Your task to perform on an android device: change your default location settings in chrome Image 0: 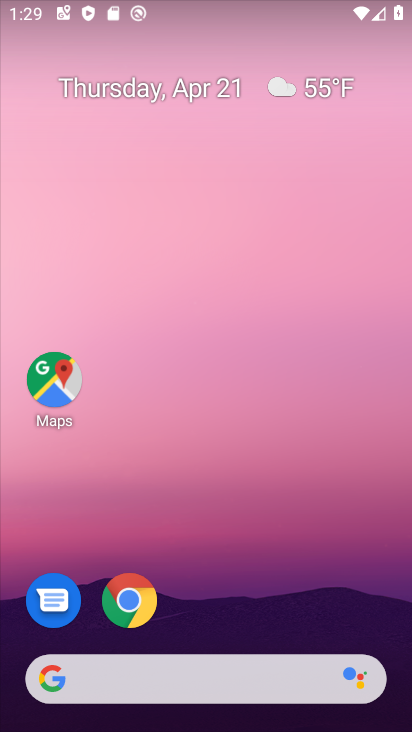
Step 0: drag from (291, 600) to (257, 156)
Your task to perform on an android device: change your default location settings in chrome Image 1: 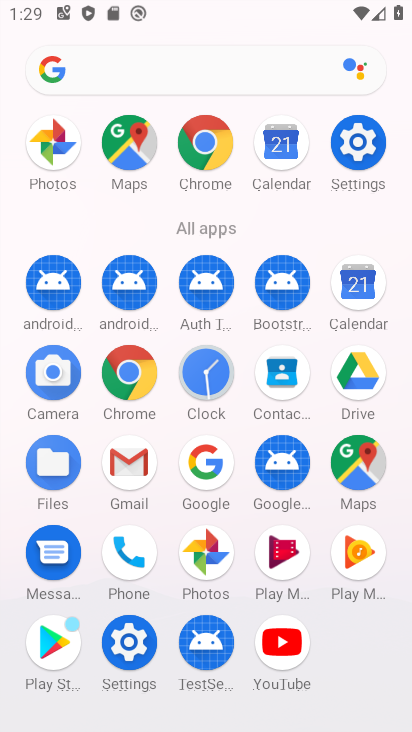
Step 1: click (373, 142)
Your task to perform on an android device: change your default location settings in chrome Image 2: 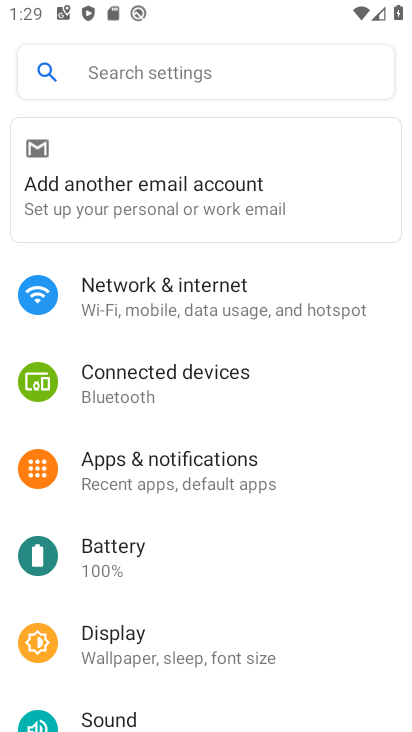
Step 2: drag from (196, 638) to (186, 489)
Your task to perform on an android device: change your default location settings in chrome Image 3: 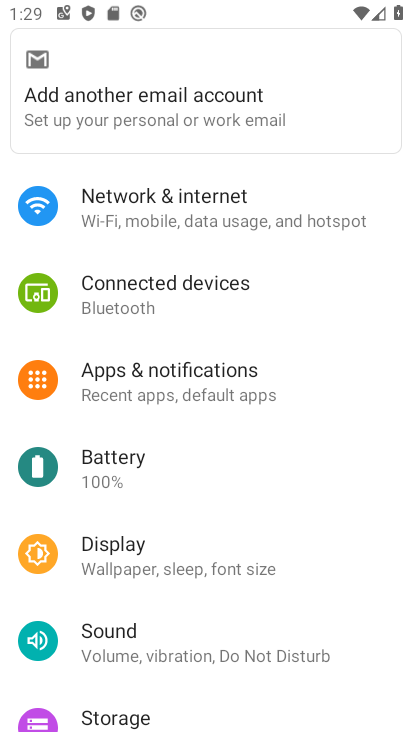
Step 3: drag from (206, 695) to (206, 453)
Your task to perform on an android device: change your default location settings in chrome Image 4: 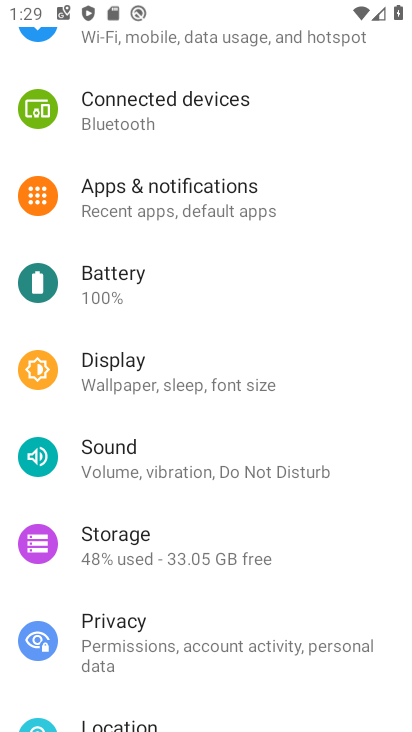
Step 4: drag from (229, 682) to (228, 499)
Your task to perform on an android device: change your default location settings in chrome Image 5: 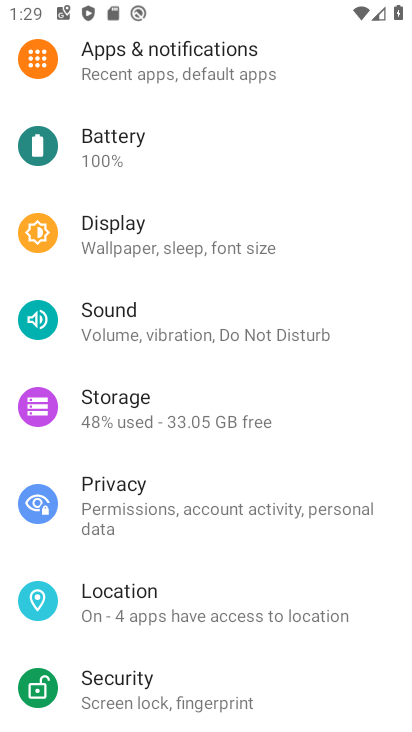
Step 5: click (220, 606)
Your task to perform on an android device: change your default location settings in chrome Image 6: 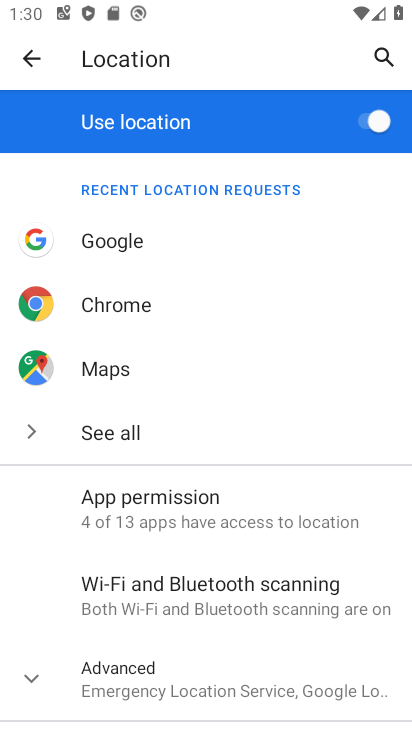
Step 6: press home button
Your task to perform on an android device: change your default location settings in chrome Image 7: 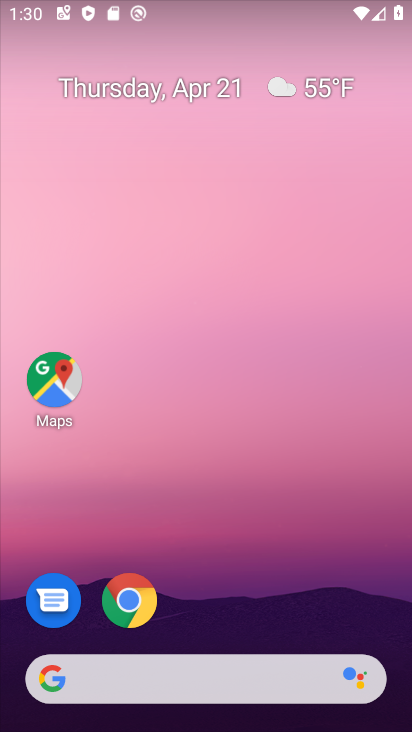
Step 7: drag from (267, 568) to (321, 175)
Your task to perform on an android device: change your default location settings in chrome Image 8: 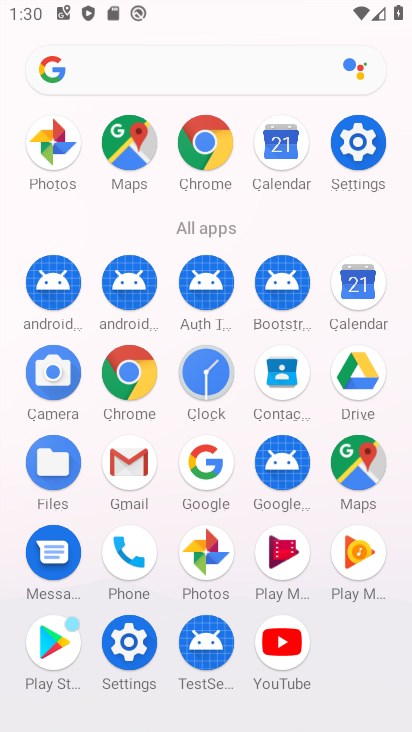
Step 8: click (204, 159)
Your task to perform on an android device: change your default location settings in chrome Image 9: 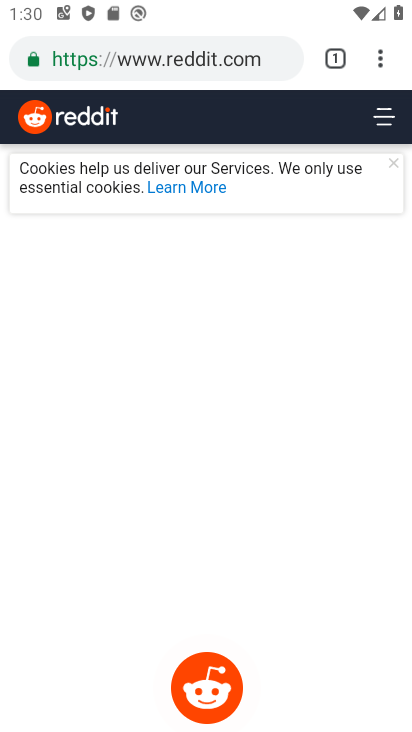
Step 9: drag from (378, 60) to (187, 635)
Your task to perform on an android device: change your default location settings in chrome Image 10: 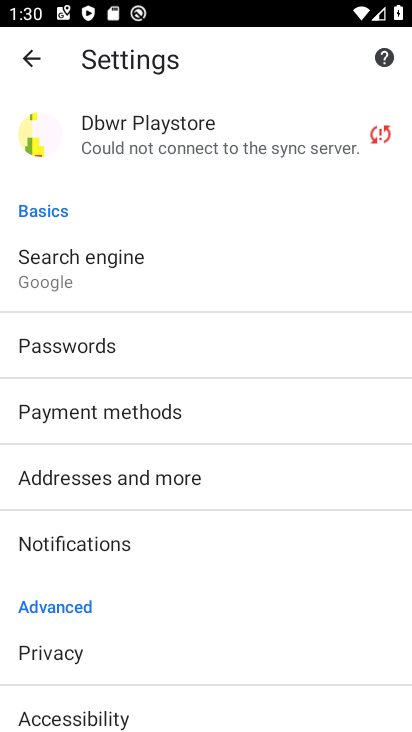
Step 10: drag from (169, 666) to (159, 334)
Your task to perform on an android device: change your default location settings in chrome Image 11: 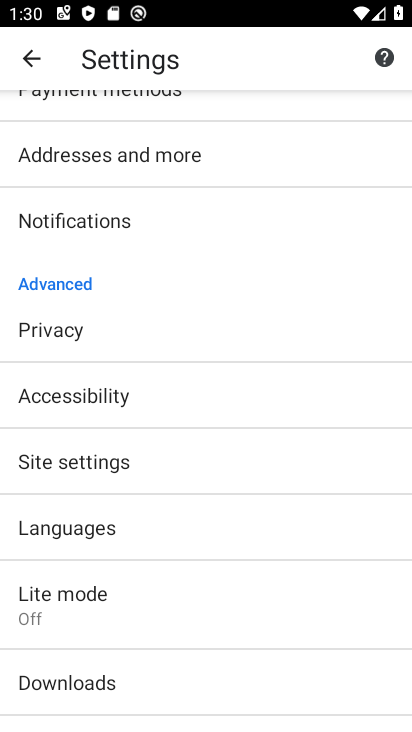
Step 11: click (95, 447)
Your task to perform on an android device: change your default location settings in chrome Image 12: 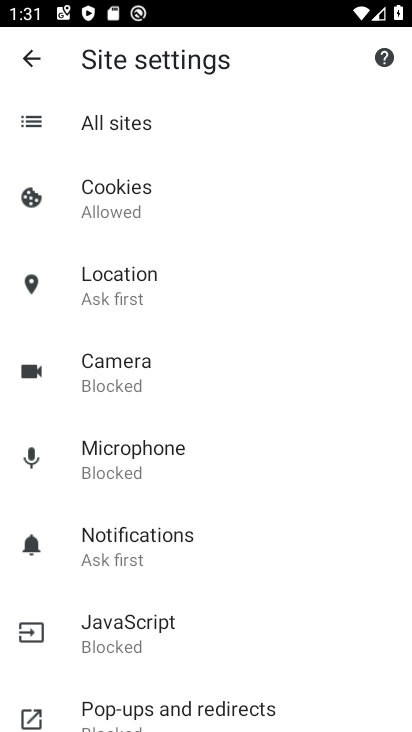
Step 12: drag from (197, 654) to (191, 285)
Your task to perform on an android device: change your default location settings in chrome Image 13: 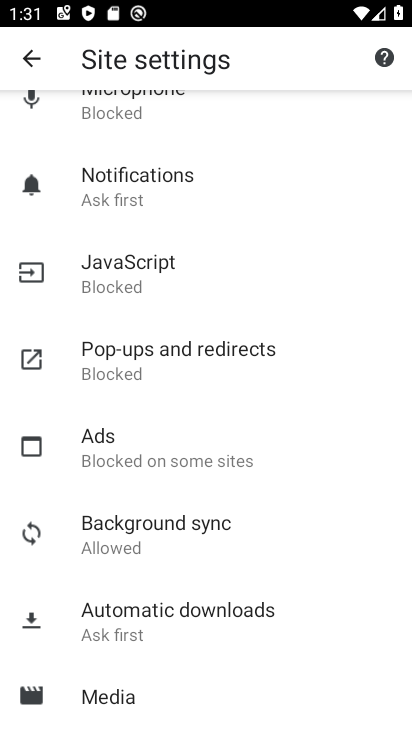
Step 13: drag from (182, 643) to (180, 247)
Your task to perform on an android device: change your default location settings in chrome Image 14: 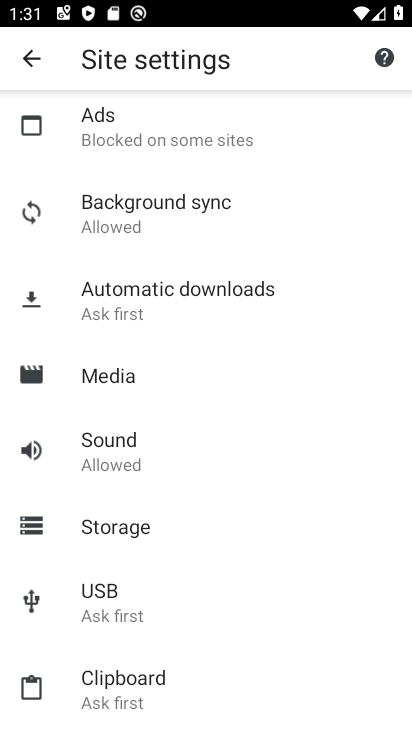
Step 14: drag from (164, 612) to (176, 221)
Your task to perform on an android device: change your default location settings in chrome Image 15: 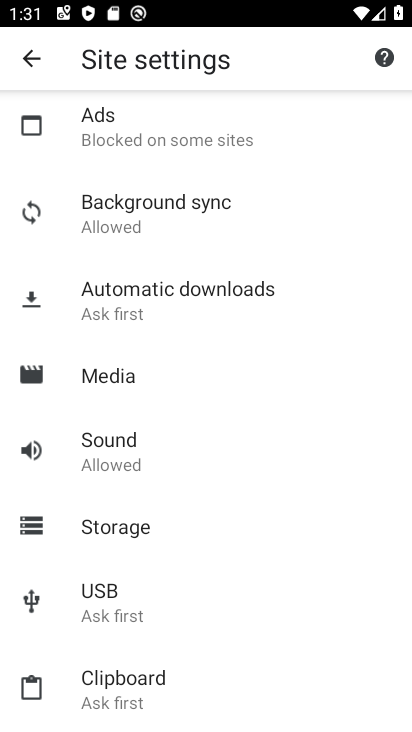
Step 15: drag from (165, 628) to (188, 279)
Your task to perform on an android device: change your default location settings in chrome Image 16: 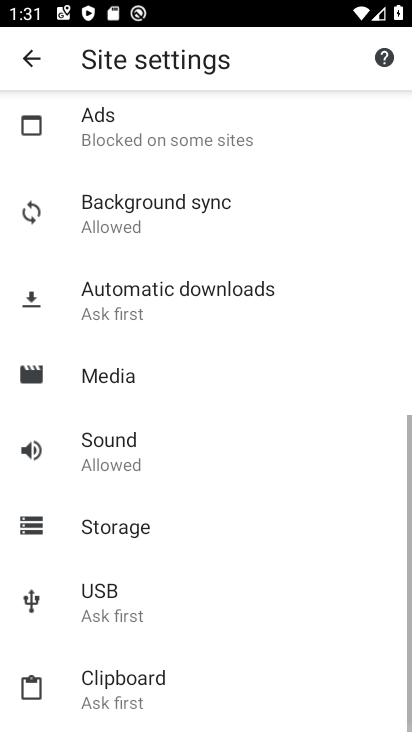
Step 16: drag from (188, 282) to (184, 613)
Your task to perform on an android device: change your default location settings in chrome Image 17: 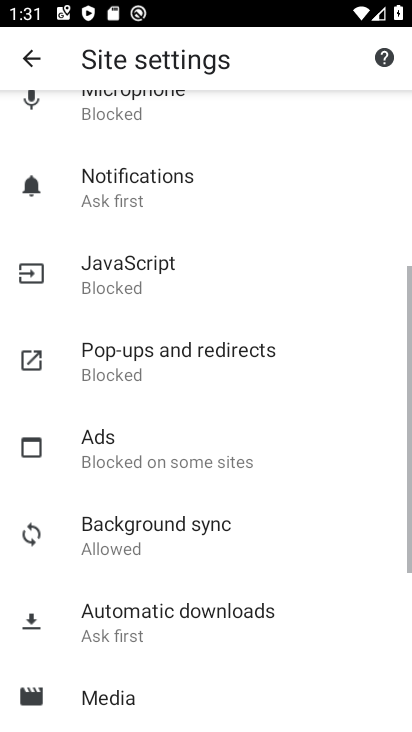
Step 17: drag from (189, 273) to (142, 621)
Your task to perform on an android device: change your default location settings in chrome Image 18: 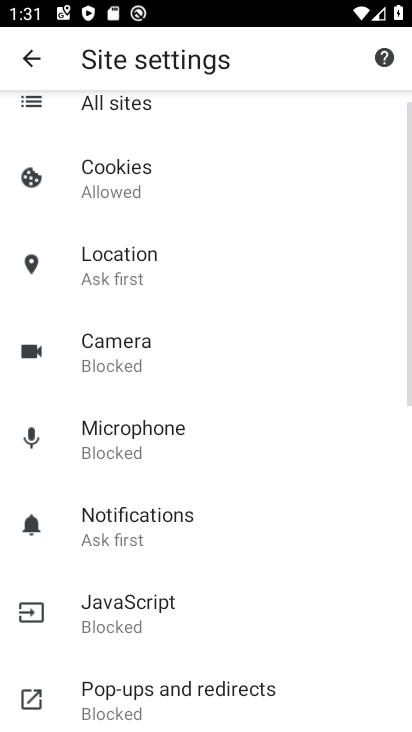
Step 18: click (124, 264)
Your task to perform on an android device: change your default location settings in chrome Image 19: 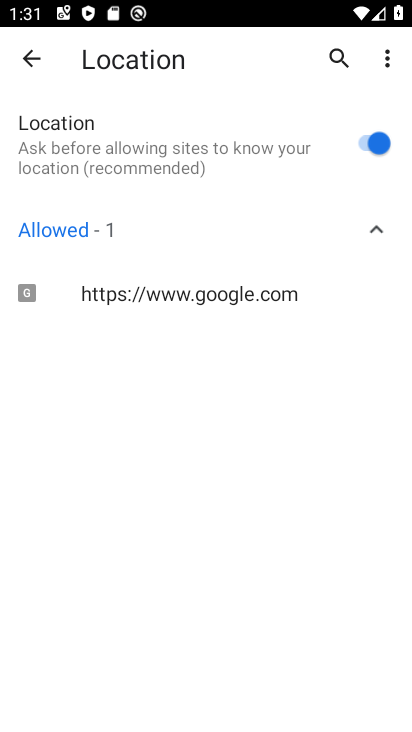
Step 19: click (374, 150)
Your task to perform on an android device: change your default location settings in chrome Image 20: 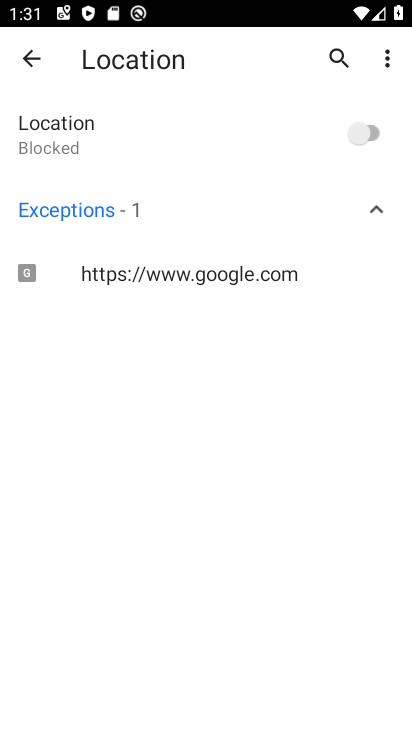
Step 20: task complete